Your task to perform on an android device: Open the calendar and show me this week's events? Image 0: 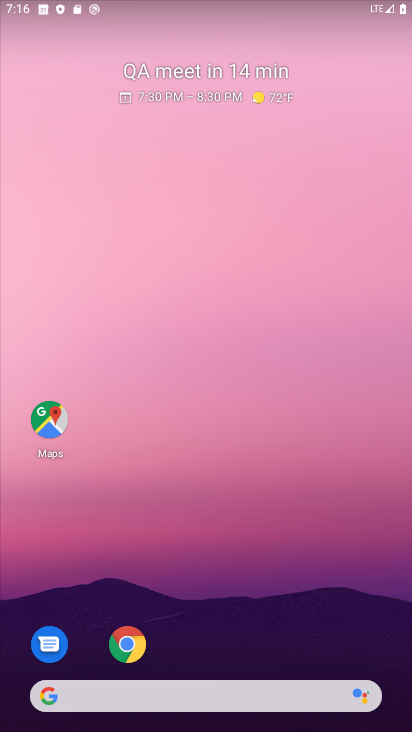
Step 0: drag from (244, 726) to (231, 328)
Your task to perform on an android device: Open the calendar and show me this week's events? Image 1: 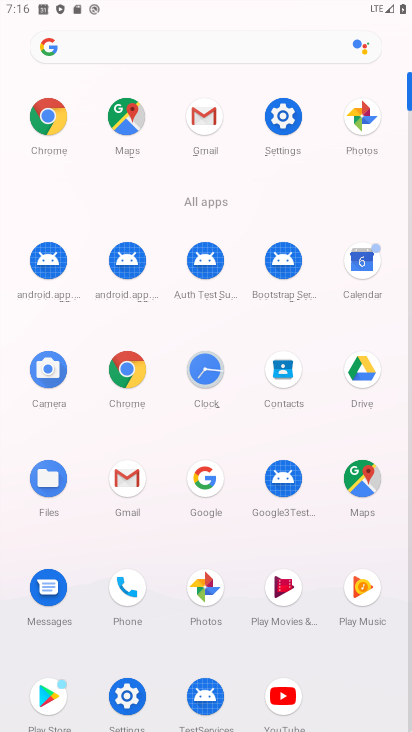
Step 1: click (341, 271)
Your task to perform on an android device: Open the calendar and show me this week's events? Image 2: 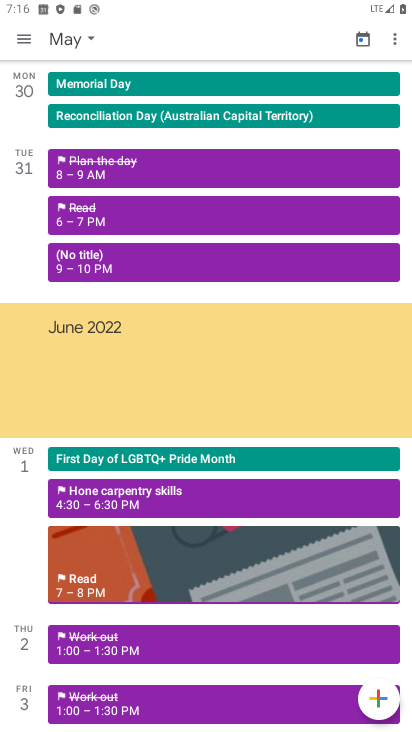
Step 2: click (22, 35)
Your task to perform on an android device: Open the calendar and show me this week's events? Image 3: 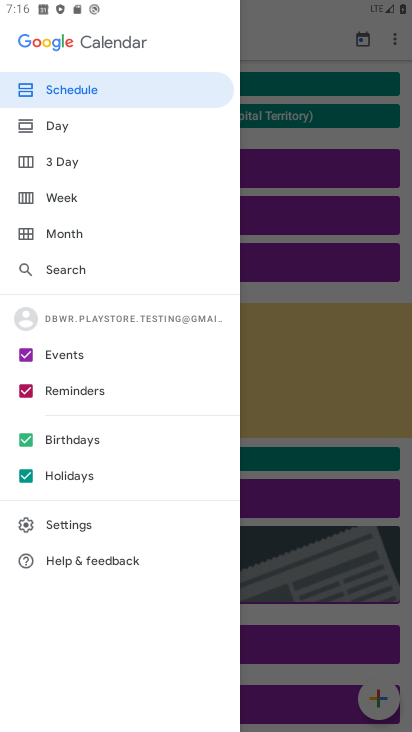
Step 3: click (94, 91)
Your task to perform on an android device: Open the calendar and show me this week's events? Image 4: 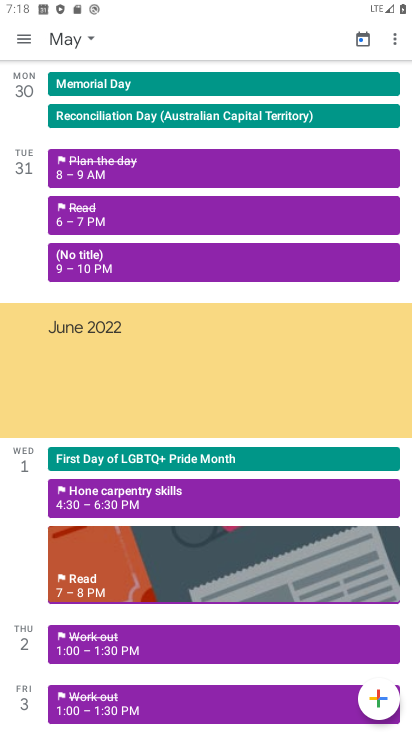
Step 4: task complete